Your task to perform on an android device: Search for Mexican restaurants on Maps Image 0: 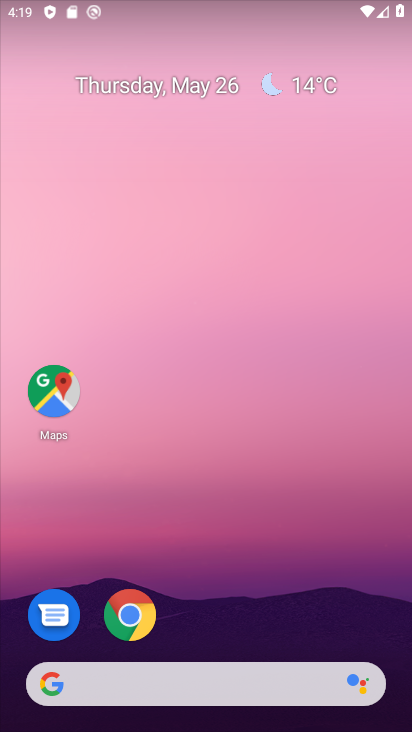
Step 0: click (64, 394)
Your task to perform on an android device: Search for Mexican restaurants on Maps Image 1: 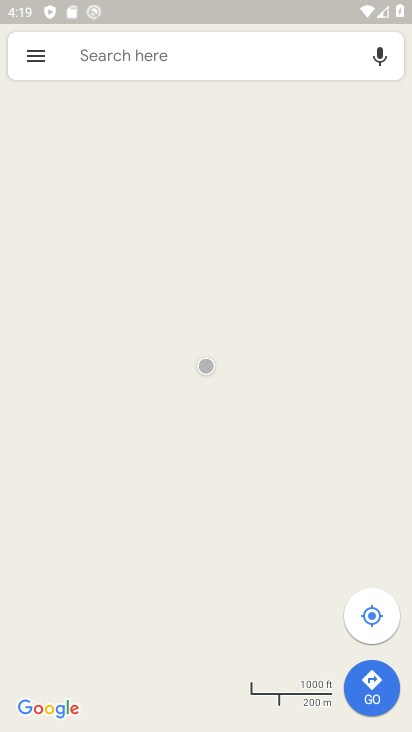
Step 1: click (181, 52)
Your task to perform on an android device: Search for Mexican restaurants on Maps Image 2: 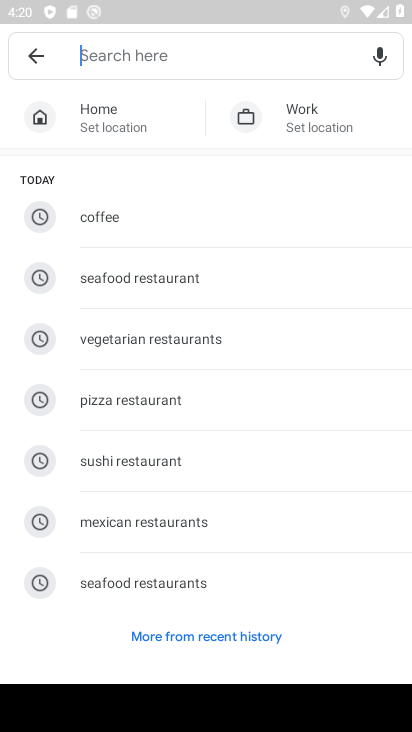
Step 2: click (202, 524)
Your task to perform on an android device: Search for Mexican restaurants on Maps Image 3: 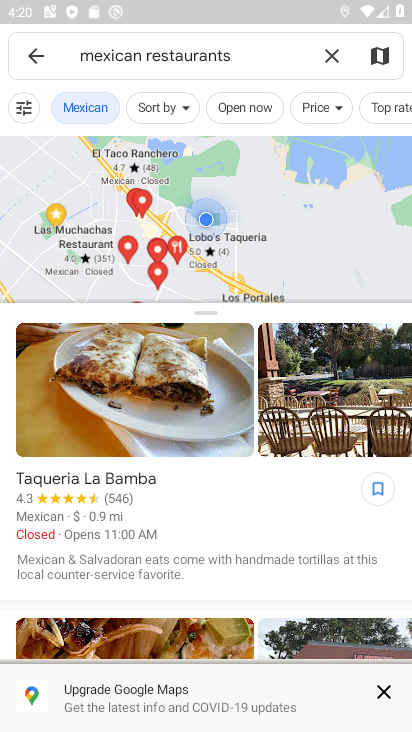
Step 3: task complete